Your task to perform on an android device: Go to Google Image 0: 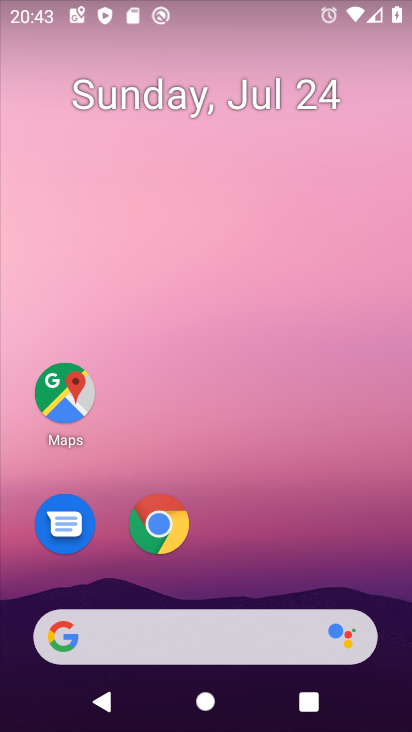
Step 0: drag from (271, 529) to (271, 68)
Your task to perform on an android device: Go to Google Image 1: 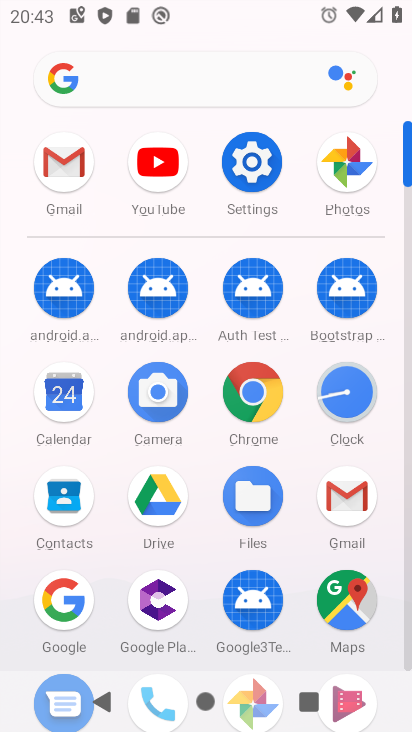
Step 1: click (73, 602)
Your task to perform on an android device: Go to Google Image 2: 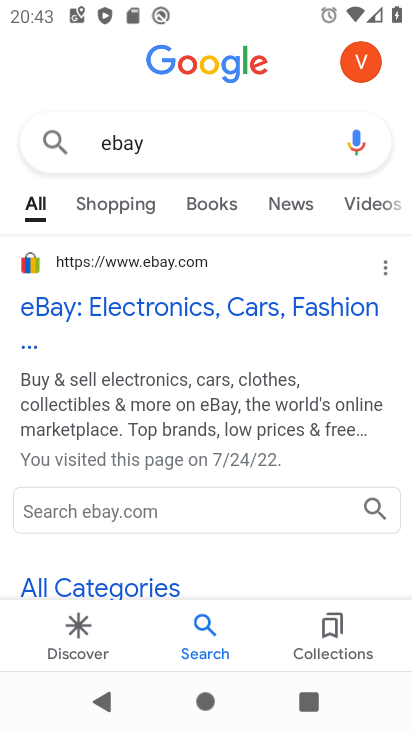
Step 2: click (244, 56)
Your task to perform on an android device: Go to Google Image 3: 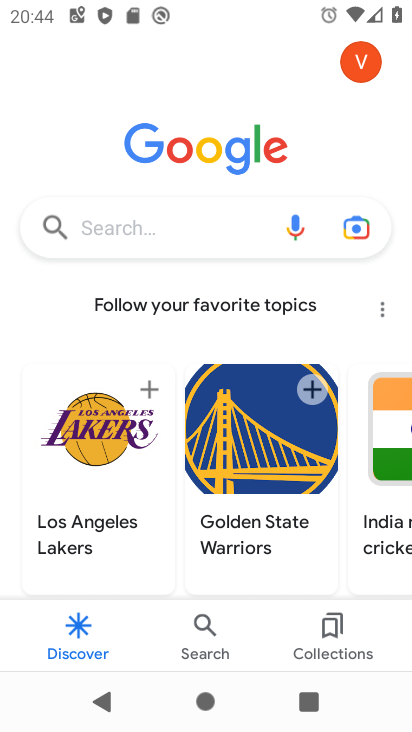
Step 3: task complete